Your task to perform on an android device: What's on my calendar for the rest of the week? Image 0: 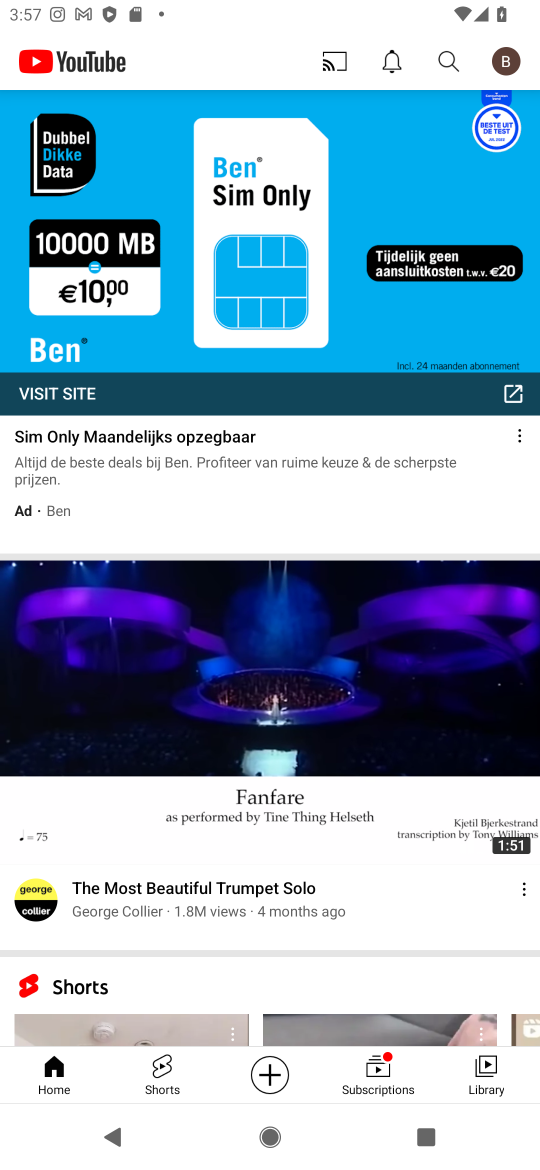
Step 0: press home button
Your task to perform on an android device: What's on my calendar for the rest of the week? Image 1: 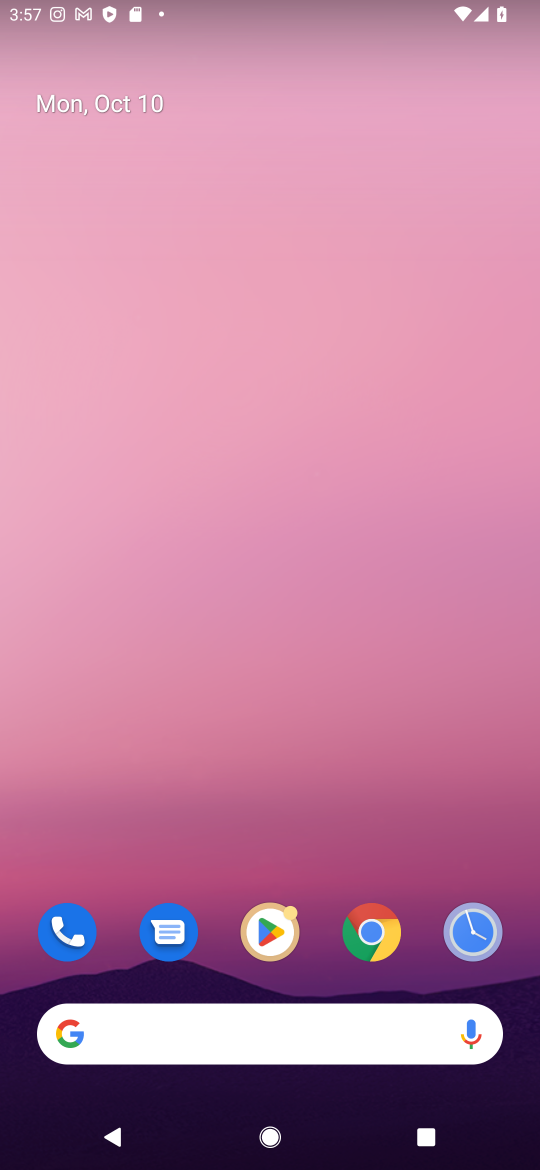
Step 1: drag from (473, 830) to (483, 173)
Your task to perform on an android device: What's on my calendar for the rest of the week? Image 2: 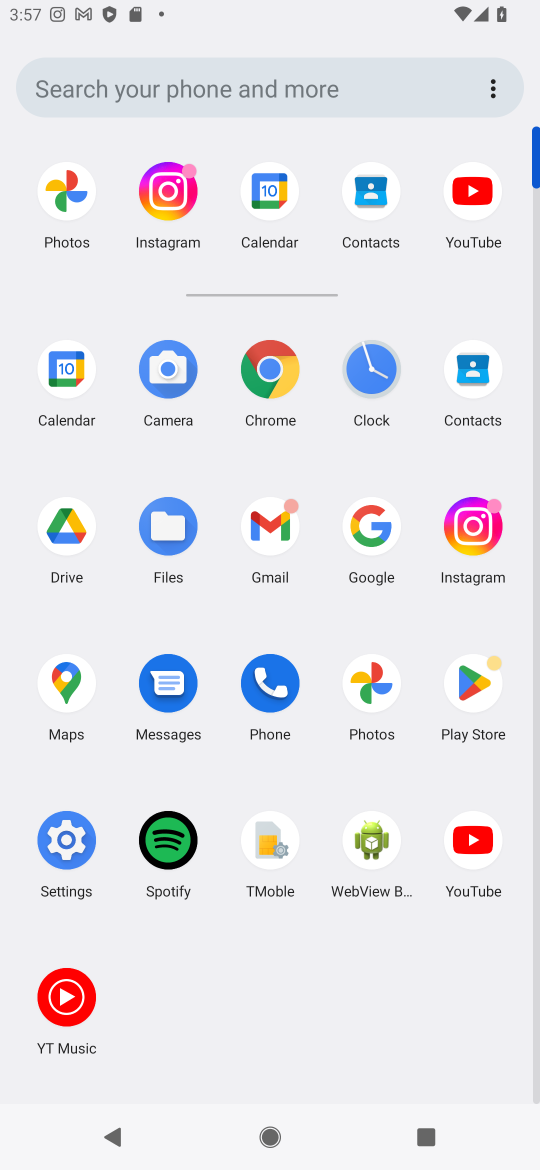
Step 2: click (364, 190)
Your task to perform on an android device: What's on my calendar for the rest of the week? Image 3: 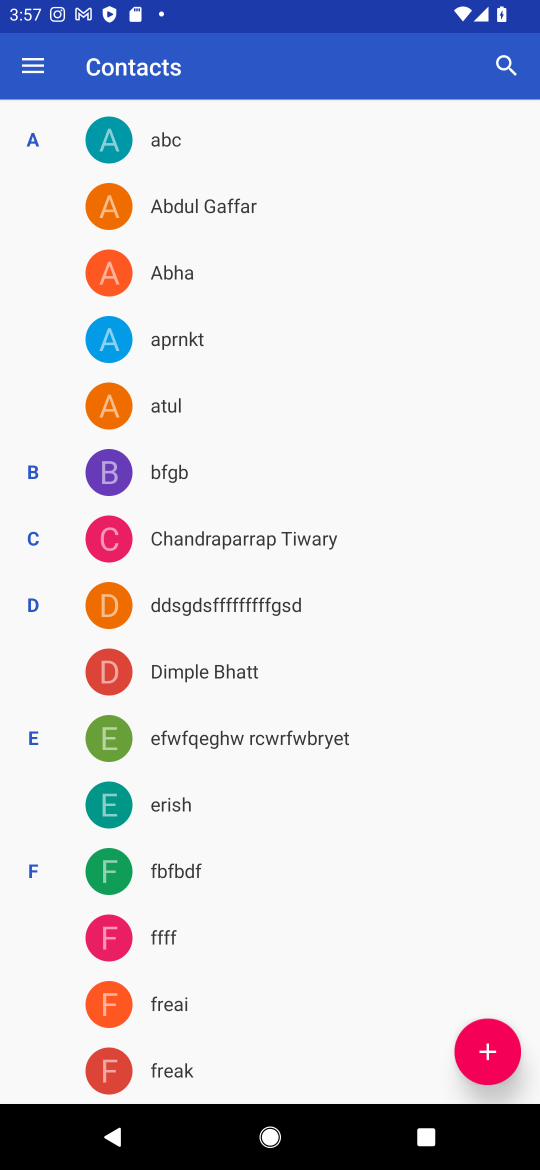
Step 3: press back button
Your task to perform on an android device: What's on my calendar for the rest of the week? Image 4: 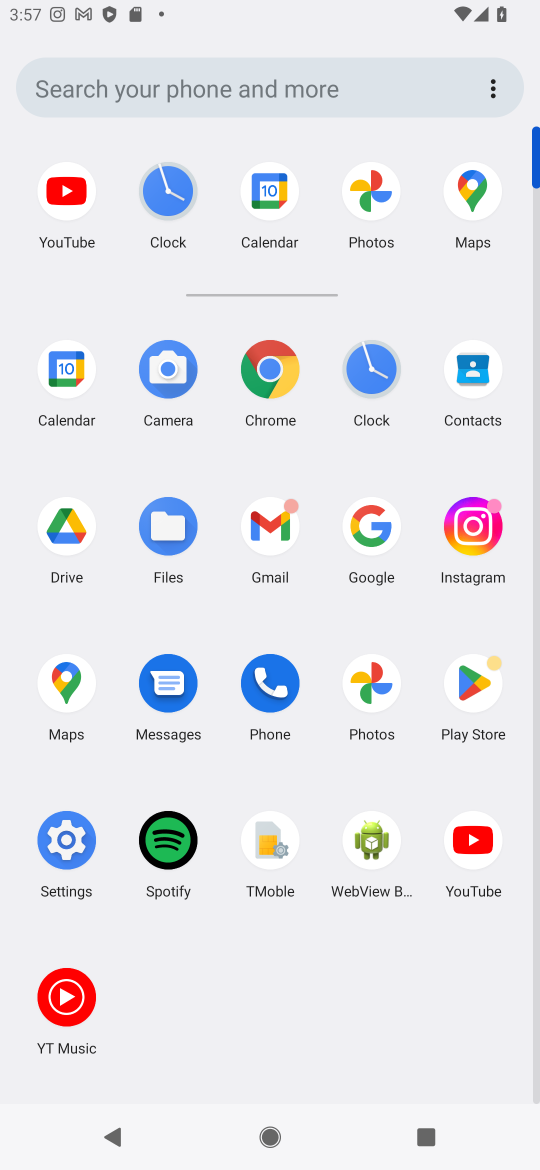
Step 4: click (51, 358)
Your task to perform on an android device: What's on my calendar for the rest of the week? Image 5: 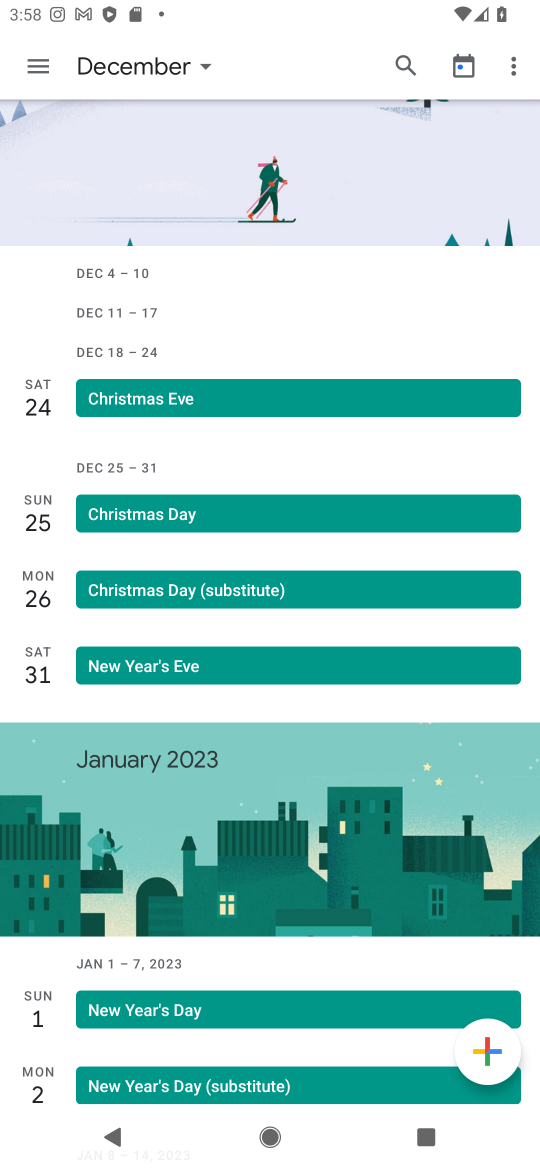
Step 5: click (36, 68)
Your task to perform on an android device: What's on my calendar for the rest of the week? Image 6: 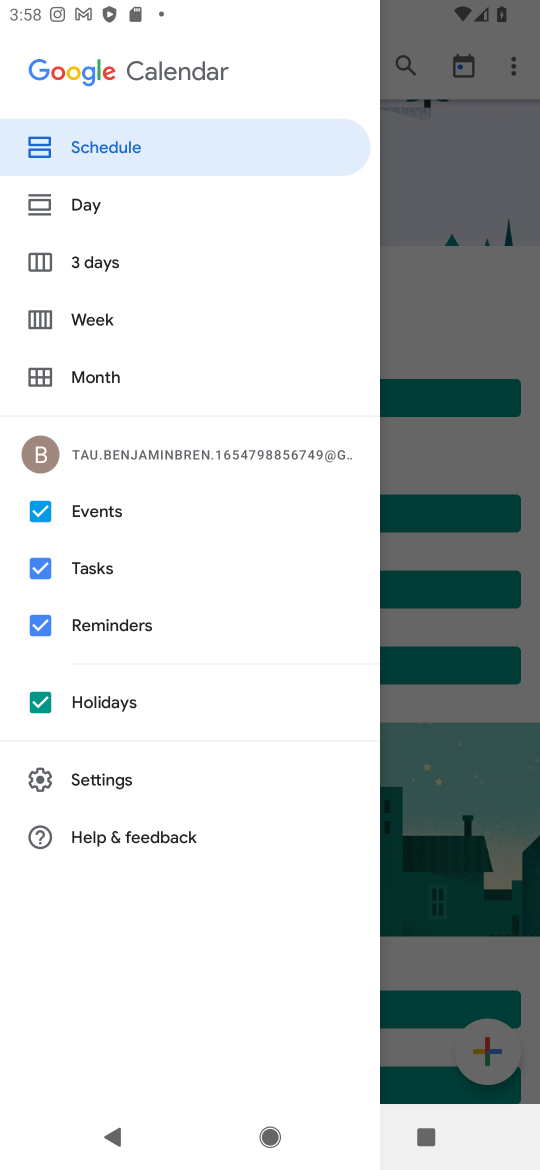
Step 6: click (118, 327)
Your task to perform on an android device: What's on my calendar for the rest of the week? Image 7: 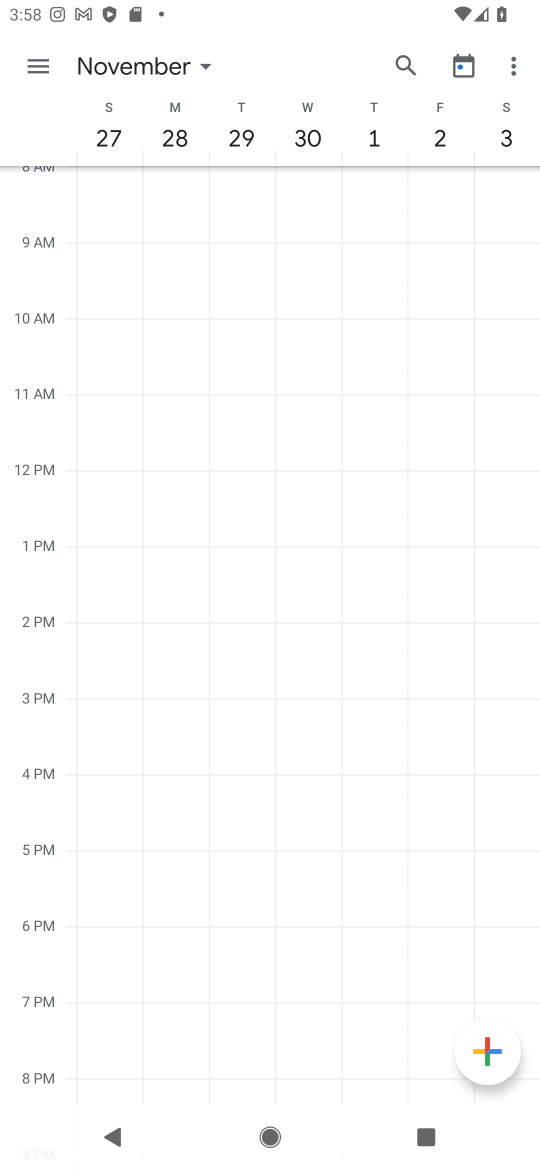
Step 7: task complete